Your task to perform on an android device: Open Chrome and go to the settings page Image 0: 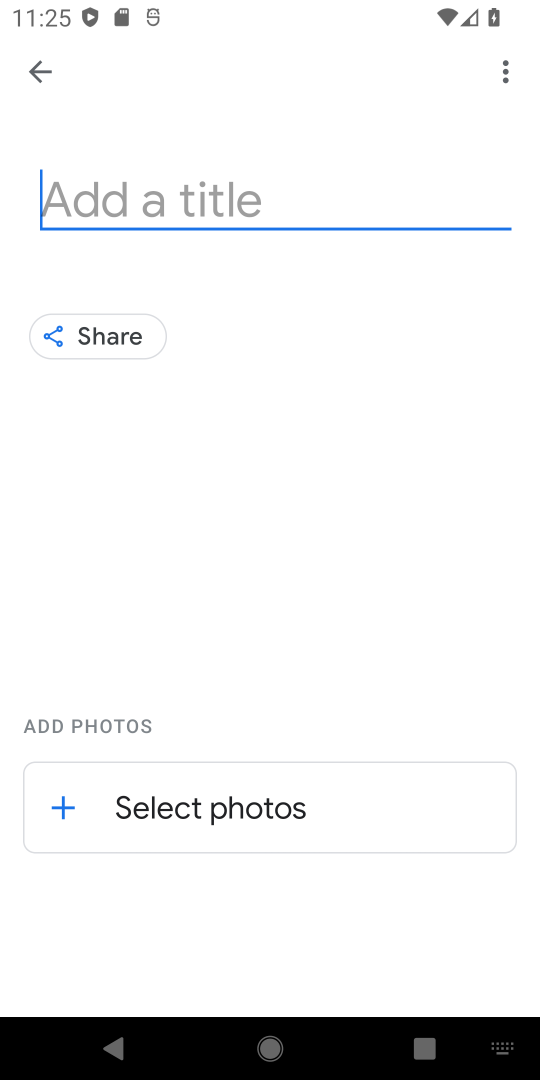
Step 0: press home button
Your task to perform on an android device: Open Chrome and go to the settings page Image 1: 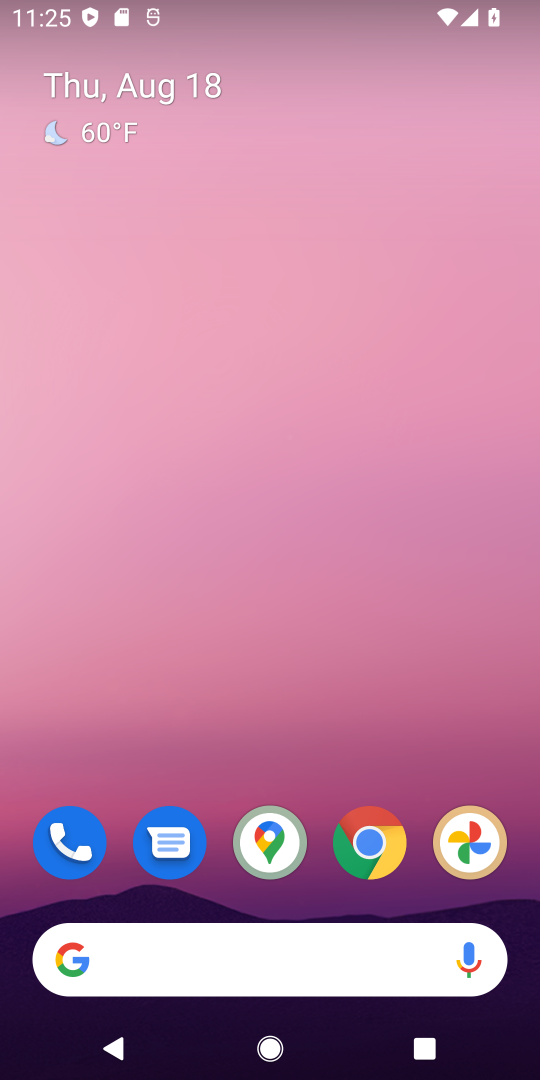
Step 1: click (381, 866)
Your task to perform on an android device: Open Chrome and go to the settings page Image 2: 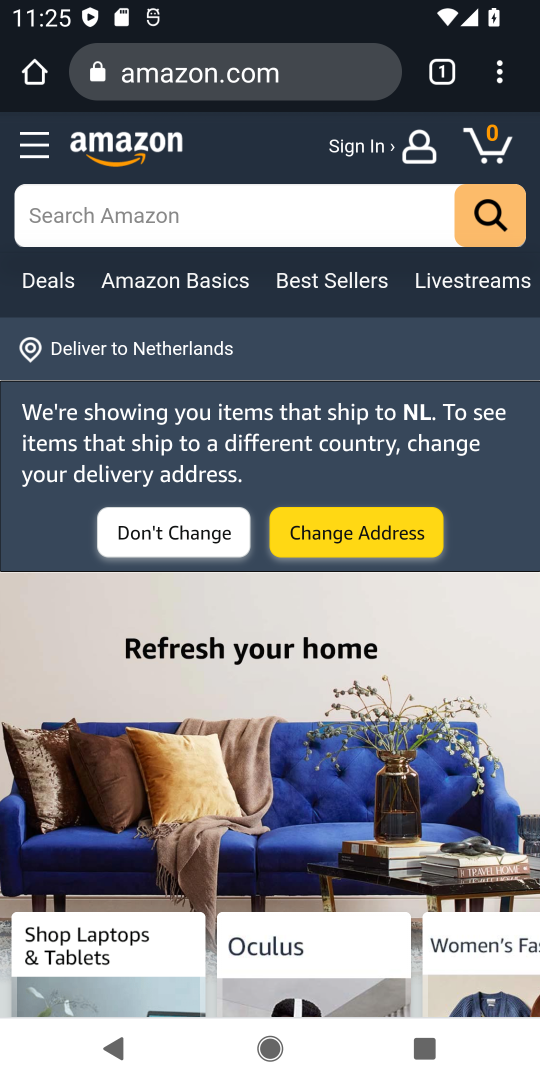
Step 2: click (507, 71)
Your task to perform on an android device: Open Chrome and go to the settings page Image 3: 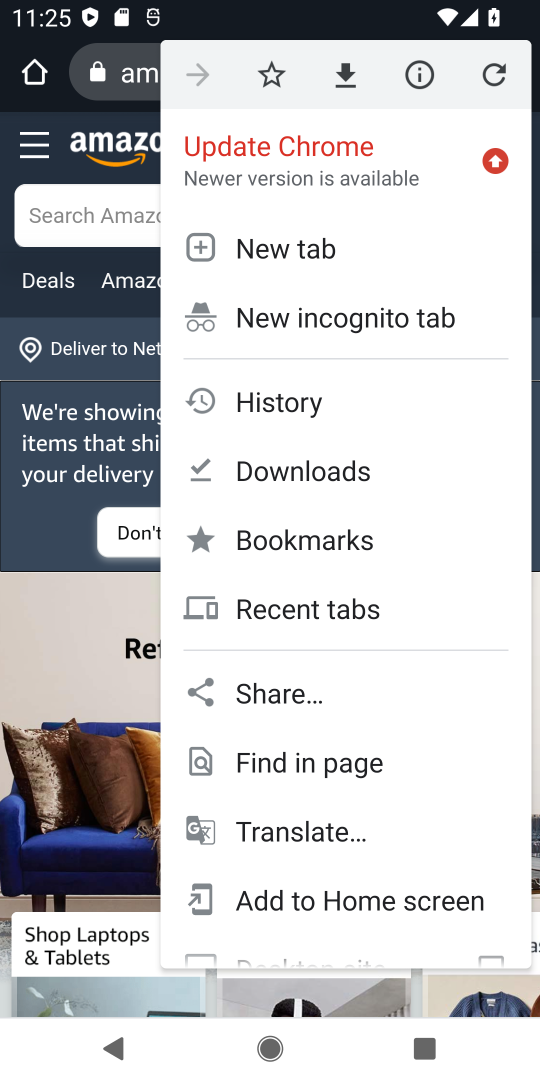
Step 3: drag from (403, 841) to (431, 493)
Your task to perform on an android device: Open Chrome and go to the settings page Image 4: 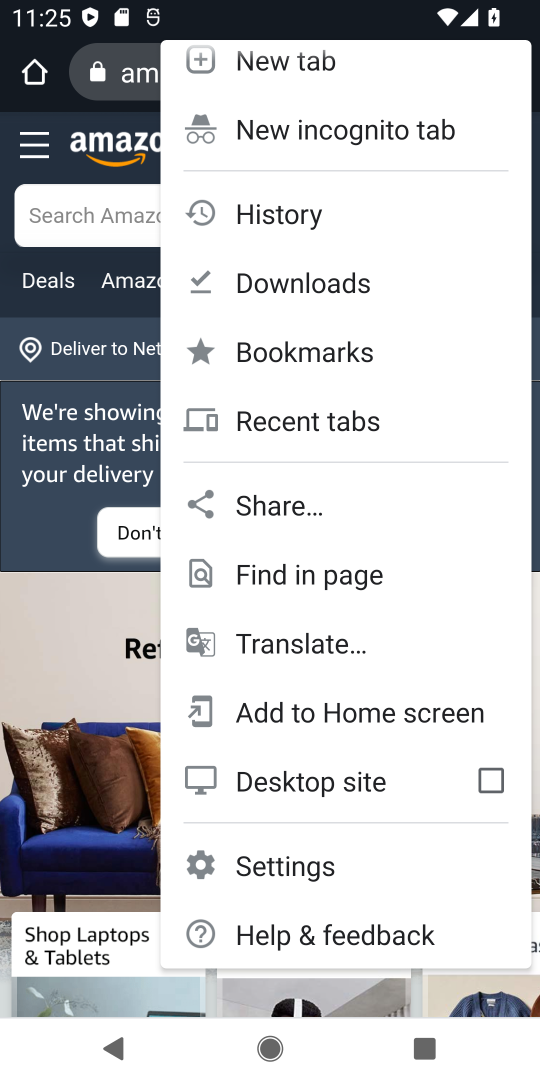
Step 4: click (347, 861)
Your task to perform on an android device: Open Chrome and go to the settings page Image 5: 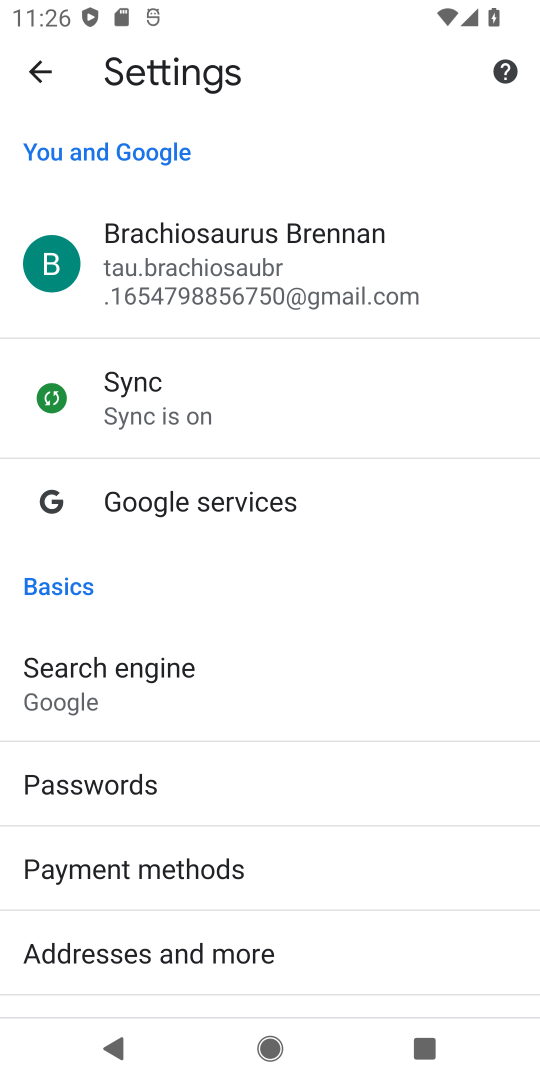
Step 5: task complete